Your task to perform on an android device: check storage Image 0: 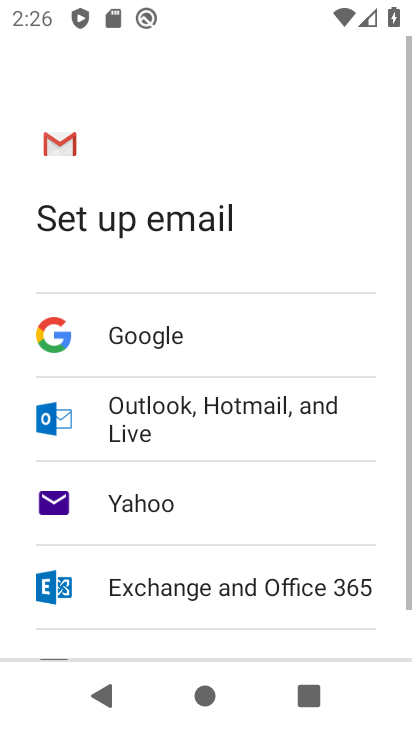
Step 0: press home button
Your task to perform on an android device: check storage Image 1: 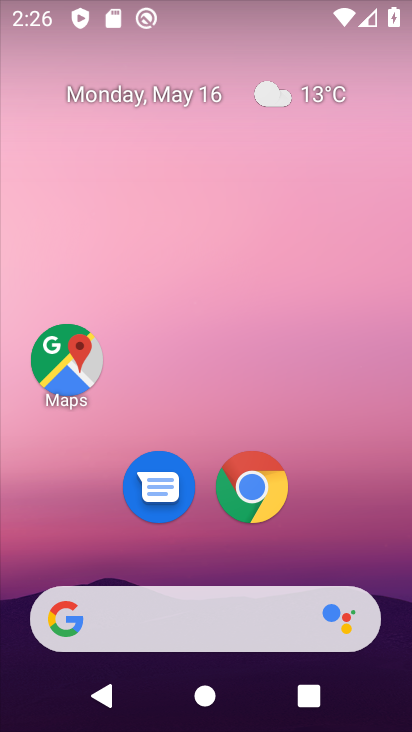
Step 1: drag from (310, 527) to (117, 98)
Your task to perform on an android device: check storage Image 2: 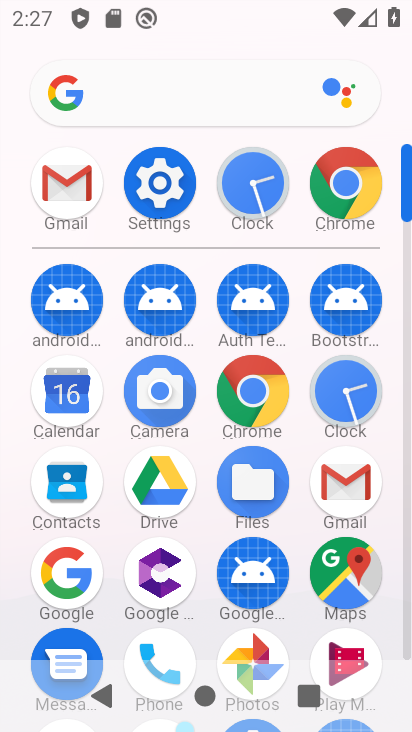
Step 2: click (158, 169)
Your task to perform on an android device: check storage Image 3: 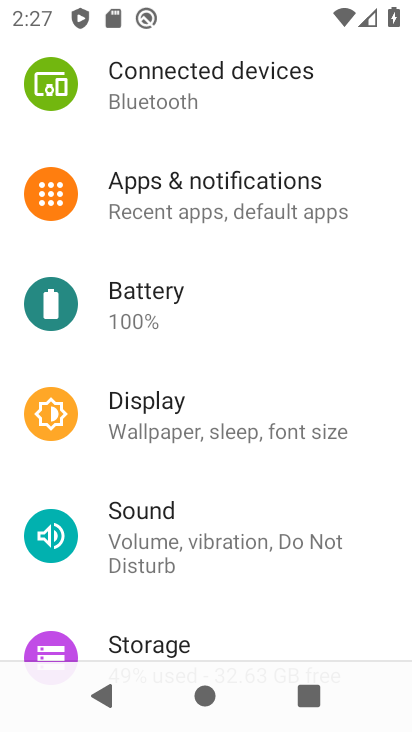
Step 3: click (149, 633)
Your task to perform on an android device: check storage Image 4: 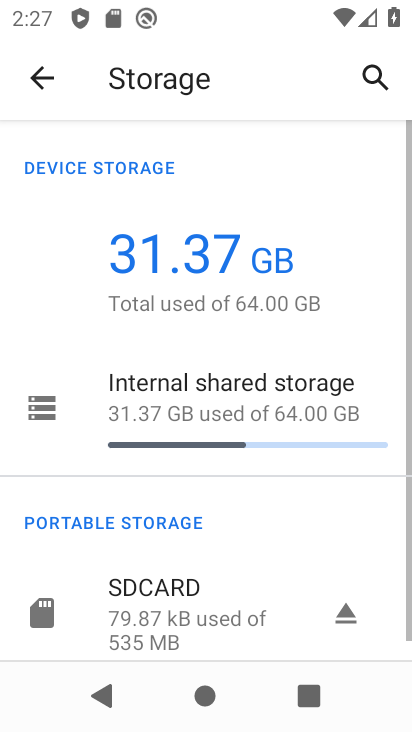
Step 4: task complete